Your task to perform on an android device: change the upload size in google photos Image 0: 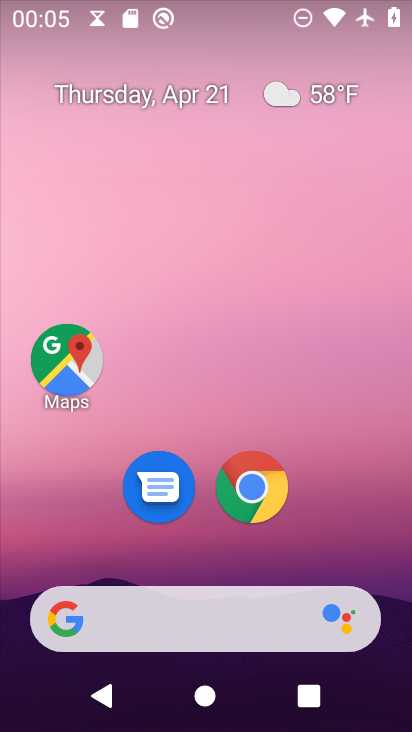
Step 0: drag from (363, 518) to (170, 20)
Your task to perform on an android device: change the upload size in google photos Image 1: 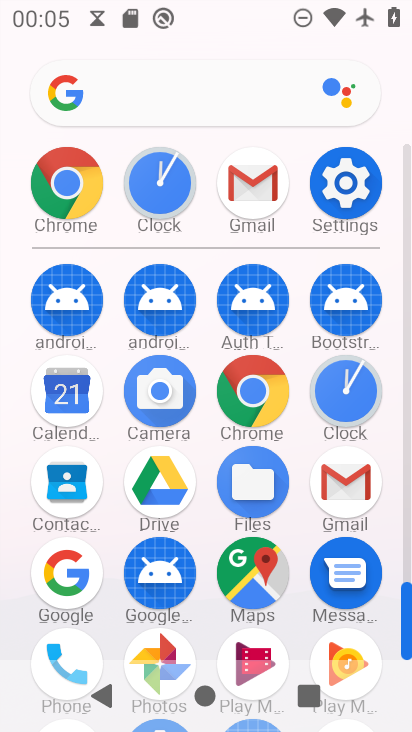
Step 1: drag from (21, 553) to (0, 277)
Your task to perform on an android device: change the upload size in google photos Image 2: 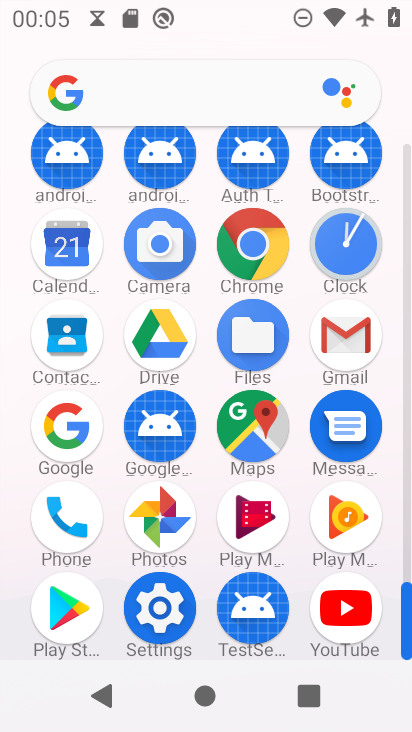
Step 2: click (157, 513)
Your task to perform on an android device: change the upload size in google photos Image 3: 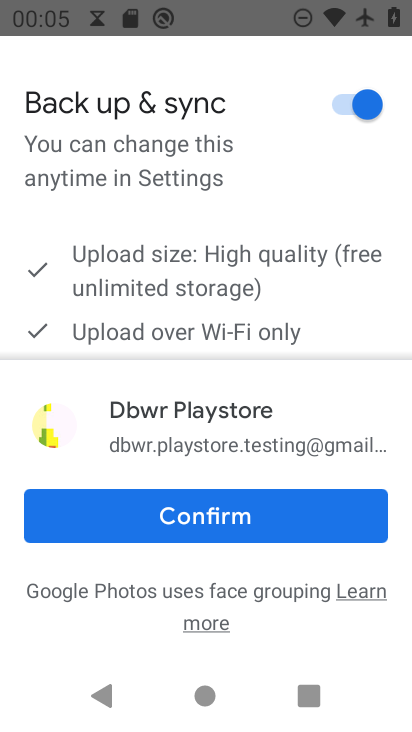
Step 3: click (206, 516)
Your task to perform on an android device: change the upload size in google photos Image 4: 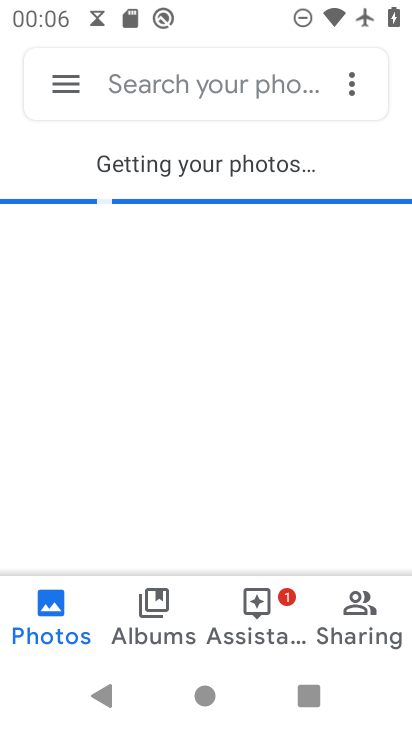
Step 4: click (59, 92)
Your task to perform on an android device: change the upload size in google photos Image 5: 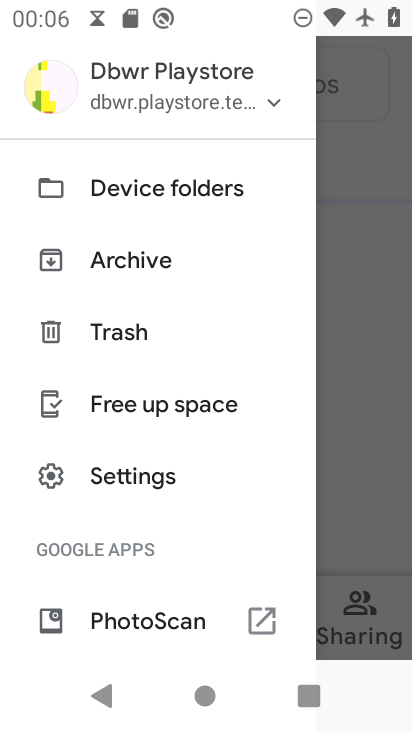
Step 5: click (168, 480)
Your task to perform on an android device: change the upload size in google photos Image 6: 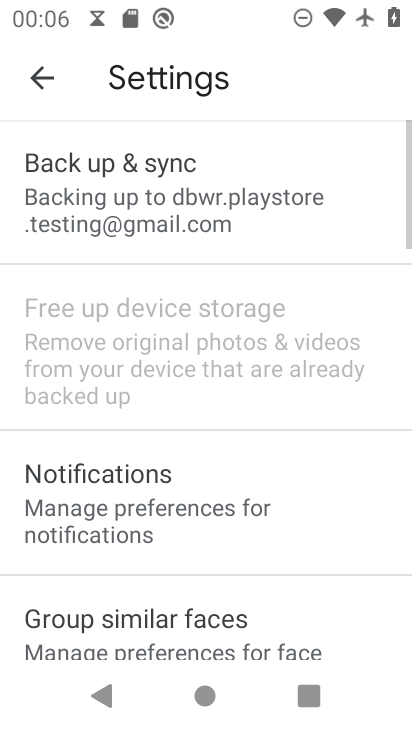
Step 6: drag from (251, 549) to (199, 158)
Your task to perform on an android device: change the upload size in google photos Image 7: 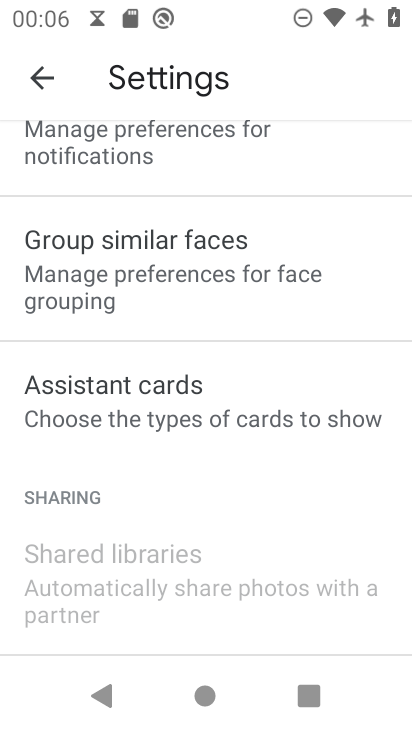
Step 7: drag from (248, 615) to (226, 236)
Your task to perform on an android device: change the upload size in google photos Image 8: 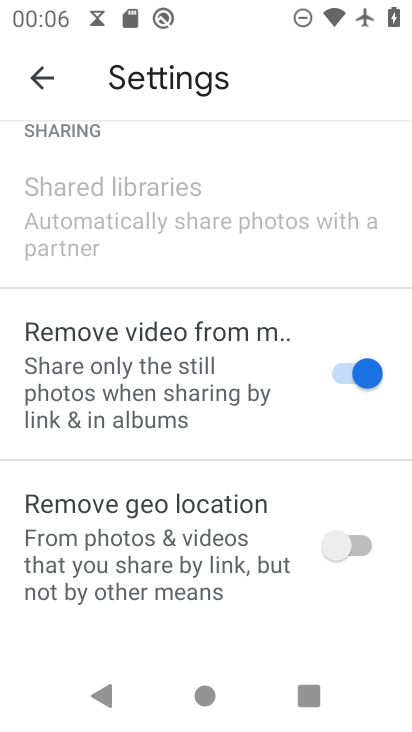
Step 8: drag from (188, 423) to (197, 107)
Your task to perform on an android device: change the upload size in google photos Image 9: 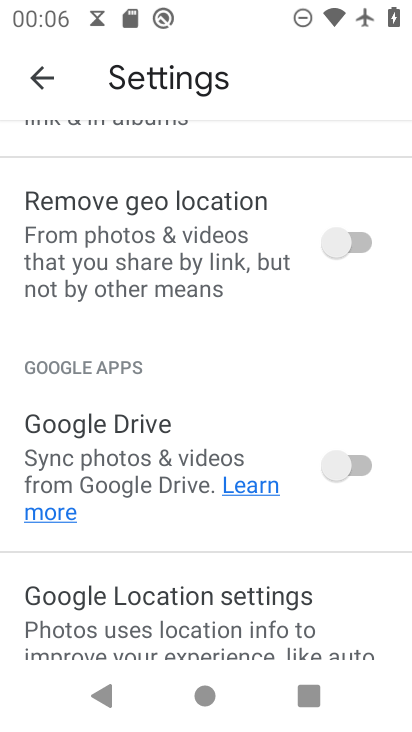
Step 9: drag from (236, 536) to (205, 220)
Your task to perform on an android device: change the upload size in google photos Image 10: 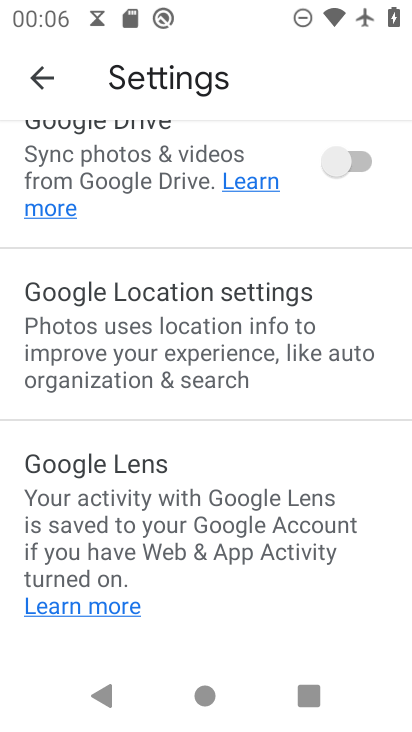
Step 10: drag from (160, 477) to (162, 145)
Your task to perform on an android device: change the upload size in google photos Image 11: 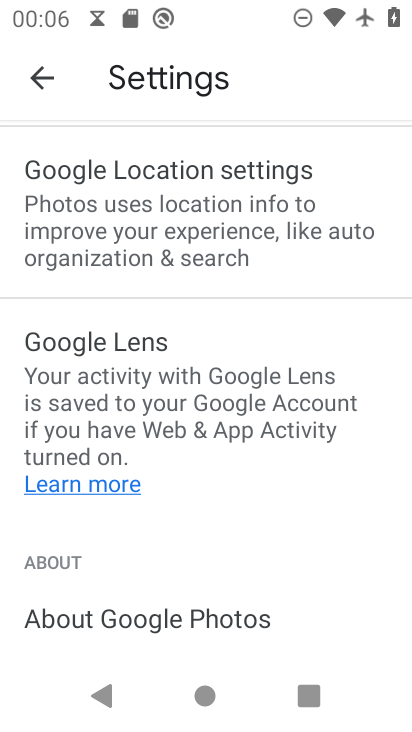
Step 11: drag from (157, 227) to (173, 518)
Your task to perform on an android device: change the upload size in google photos Image 12: 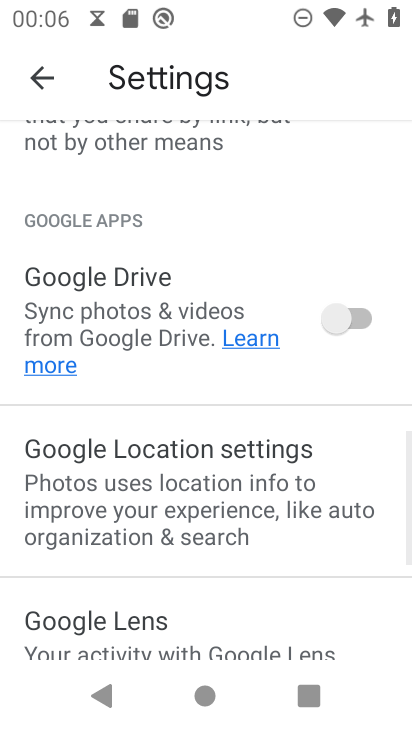
Step 12: drag from (151, 150) to (185, 565)
Your task to perform on an android device: change the upload size in google photos Image 13: 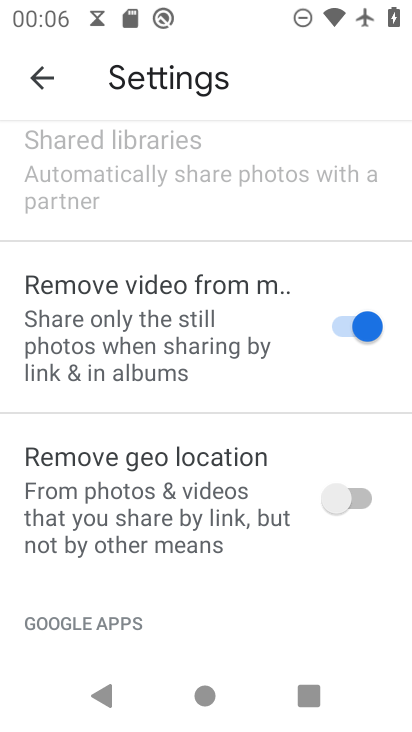
Step 13: drag from (157, 278) to (141, 586)
Your task to perform on an android device: change the upload size in google photos Image 14: 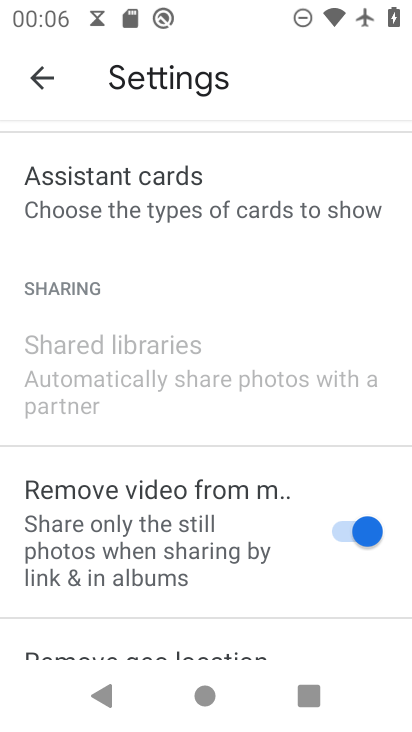
Step 14: drag from (151, 203) to (135, 501)
Your task to perform on an android device: change the upload size in google photos Image 15: 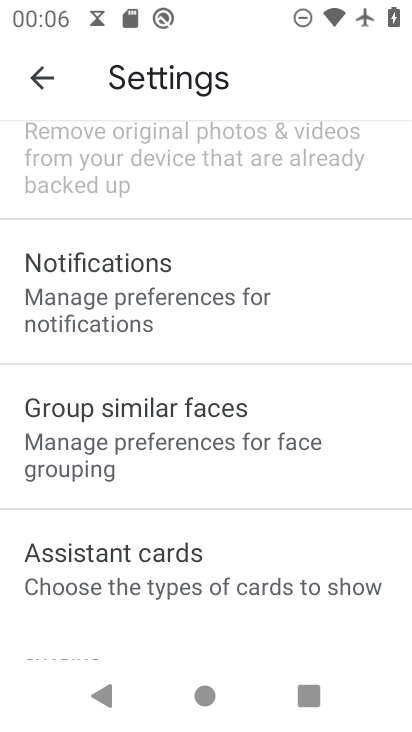
Step 15: drag from (144, 240) to (141, 582)
Your task to perform on an android device: change the upload size in google photos Image 16: 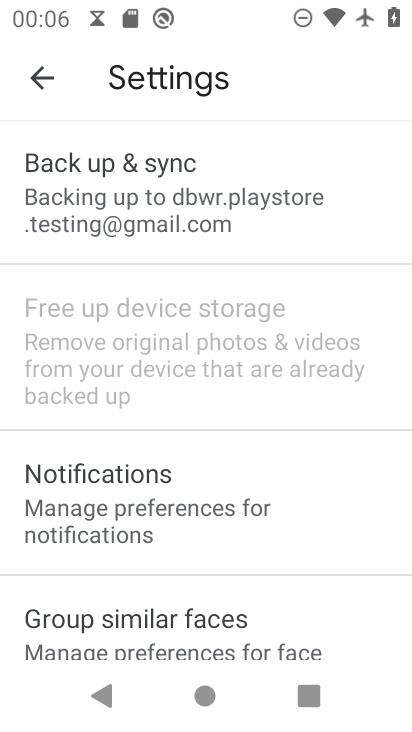
Step 16: click (196, 178)
Your task to perform on an android device: change the upload size in google photos Image 17: 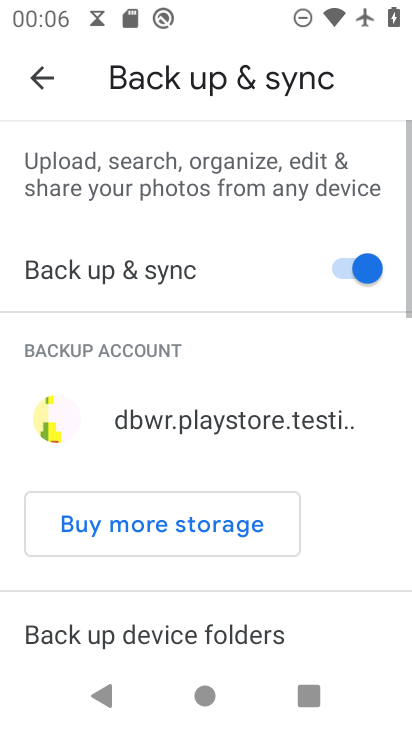
Step 17: drag from (301, 597) to (245, 293)
Your task to perform on an android device: change the upload size in google photos Image 18: 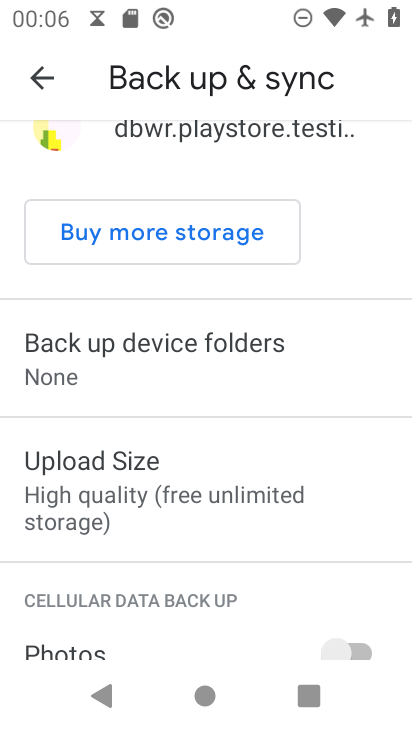
Step 18: click (243, 512)
Your task to perform on an android device: change the upload size in google photos Image 19: 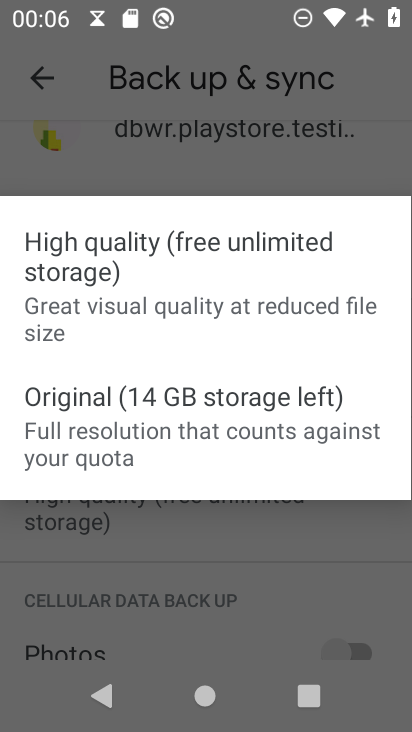
Step 19: click (194, 442)
Your task to perform on an android device: change the upload size in google photos Image 20: 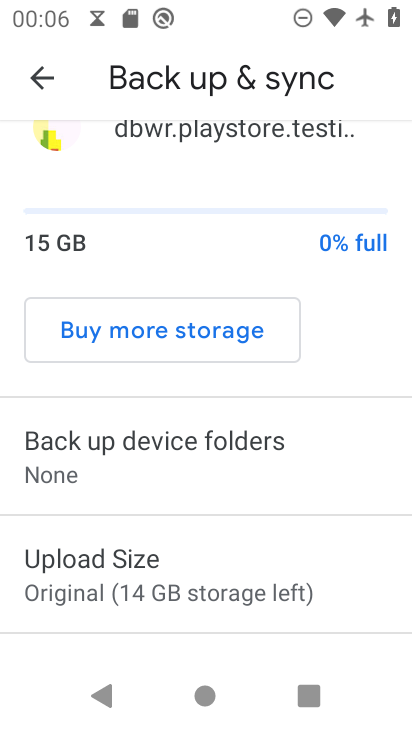
Step 20: task complete